Your task to perform on an android device: Go to sound settings Image 0: 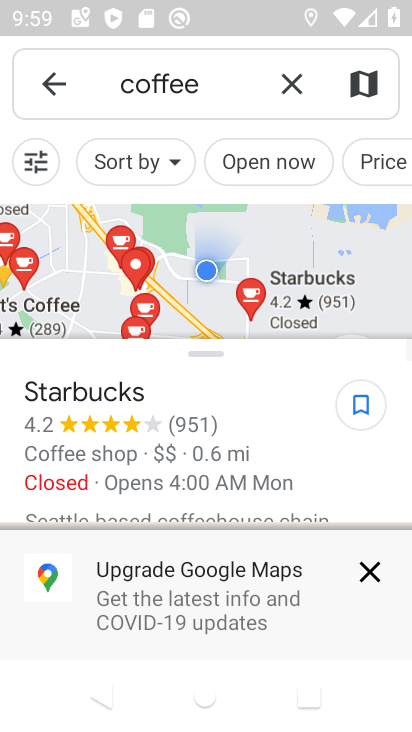
Step 0: press home button
Your task to perform on an android device: Go to sound settings Image 1: 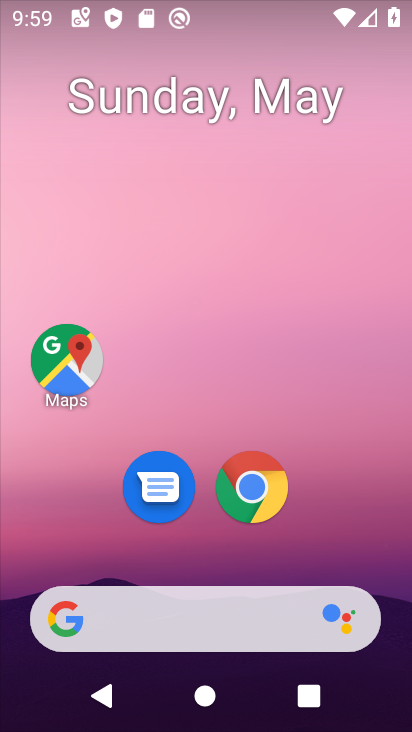
Step 1: drag from (381, 576) to (350, 156)
Your task to perform on an android device: Go to sound settings Image 2: 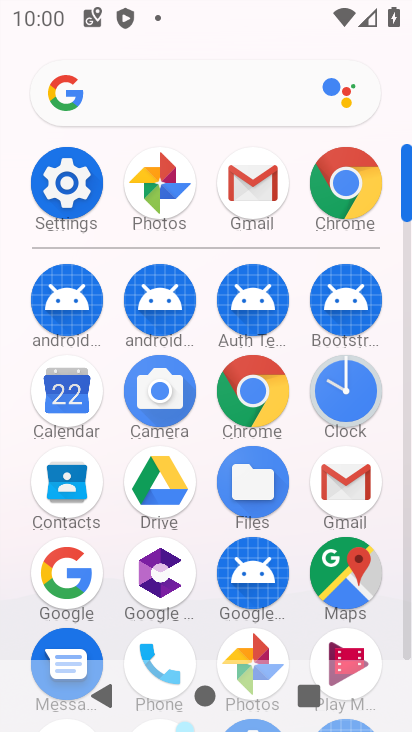
Step 2: click (77, 208)
Your task to perform on an android device: Go to sound settings Image 3: 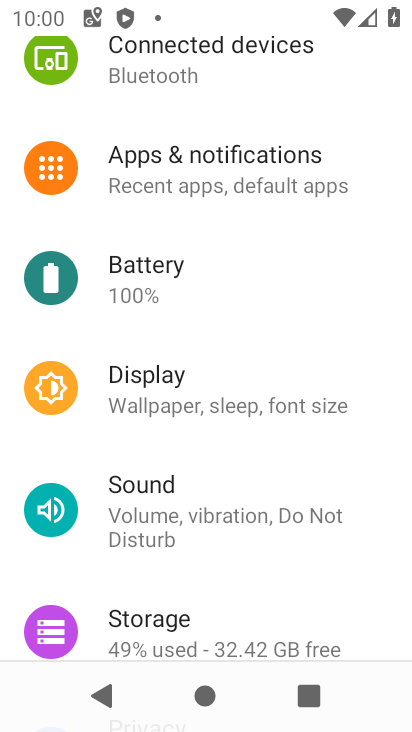
Step 3: drag from (372, 596) to (362, 491)
Your task to perform on an android device: Go to sound settings Image 4: 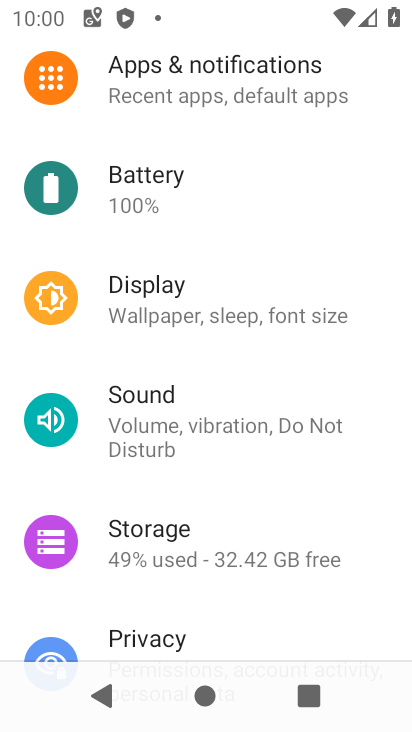
Step 4: drag from (374, 598) to (377, 499)
Your task to perform on an android device: Go to sound settings Image 5: 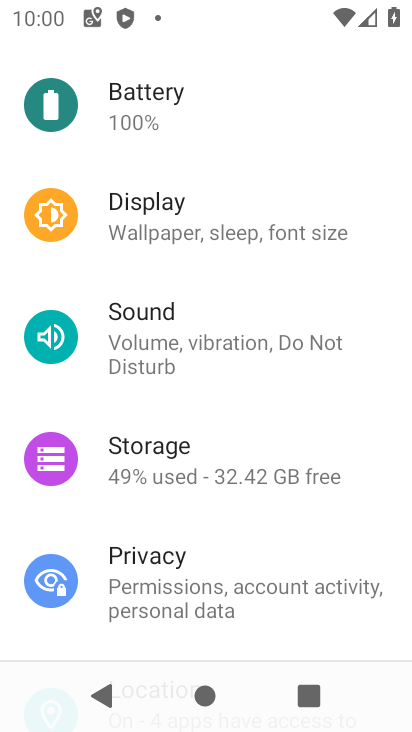
Step 5: drag from (370, 601) to (372, 512)
Your task to perform on an android device: Go to sound settings Image 6: 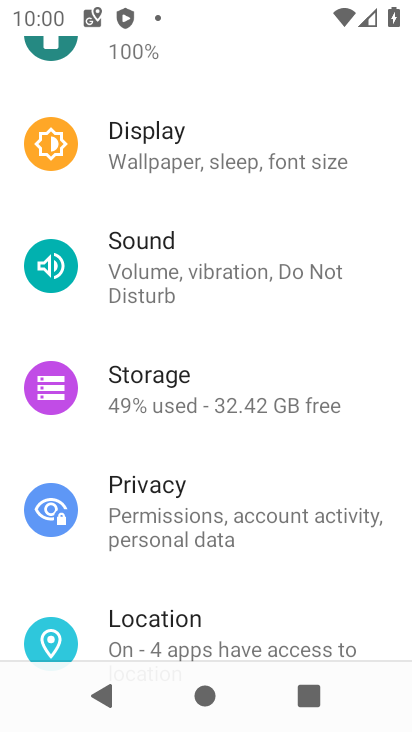
Step 6: drag from (361, 593) to (369, 509)
Your task to perform on an android device: Go to sound settings Image 7: 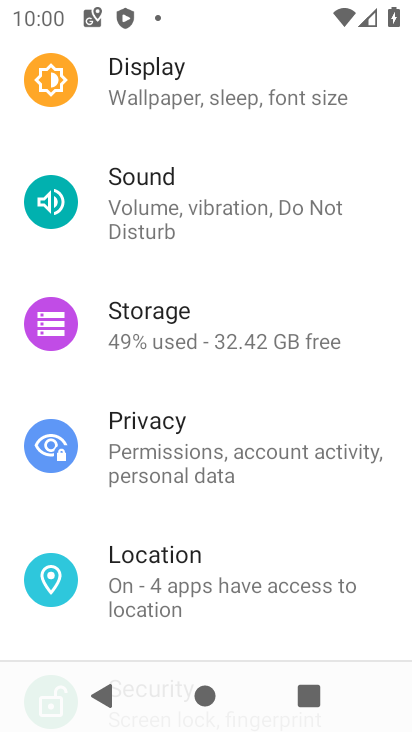
Step 7: drag from (388, 593) to (387, 470)
Your task to perform on an android device: Go to sound settings Image 8: 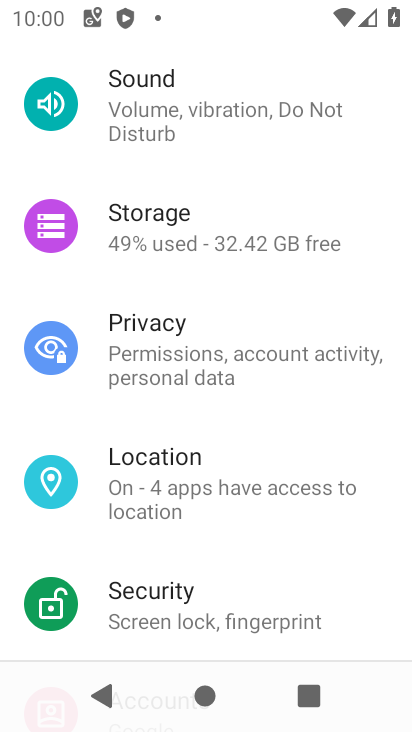
Step 8: drag from (370, 588) to (371, 484)
Your task to perform on an android device: Go to sound settings Image 9: 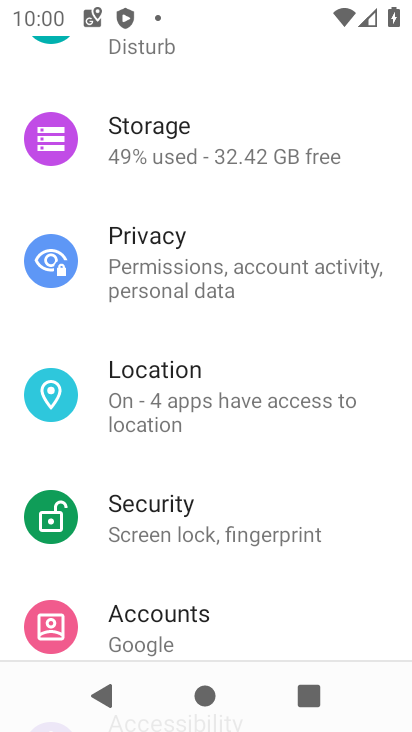
Step 9: drag from (369, 373) to (360, 556)
Your task to perform on an android device: Go to sound settings Image 10: 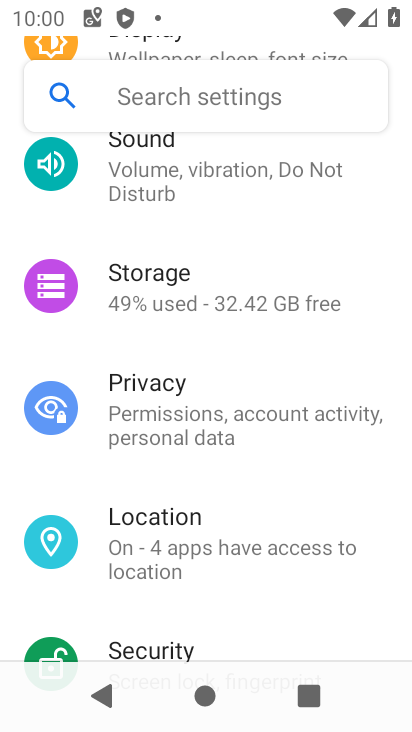
Step 10: drag from (366, 405) to (364, 560)
Your task to perform on an android device: Go to sound settings Image 11: 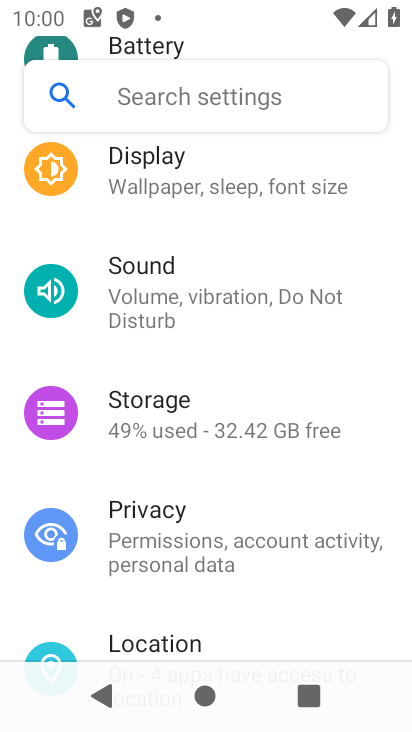
Step 11: drag from (362, 263) to (345, 464)
Your task to perform on an android device: Go to sound settings Image 12: 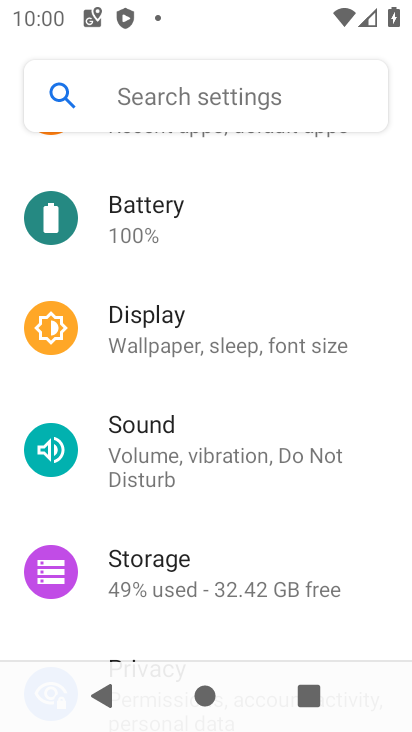
Step 12: click (162, 466)
Your task to perform on an android device: Go to sound settings Image 13: 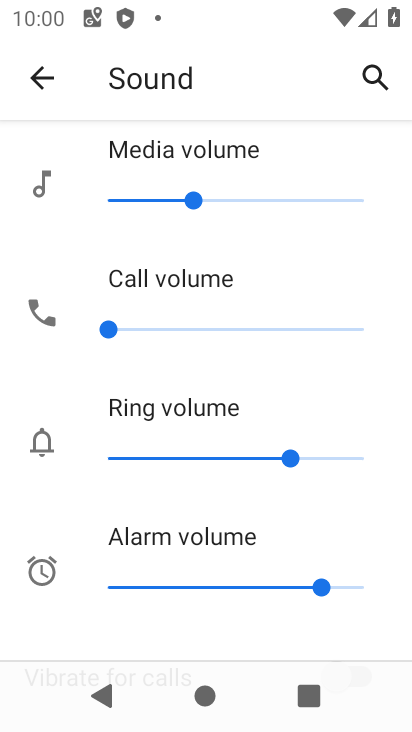
Step 13: task complete